Your task to perform on an android device: Go to sound settings Image 0: 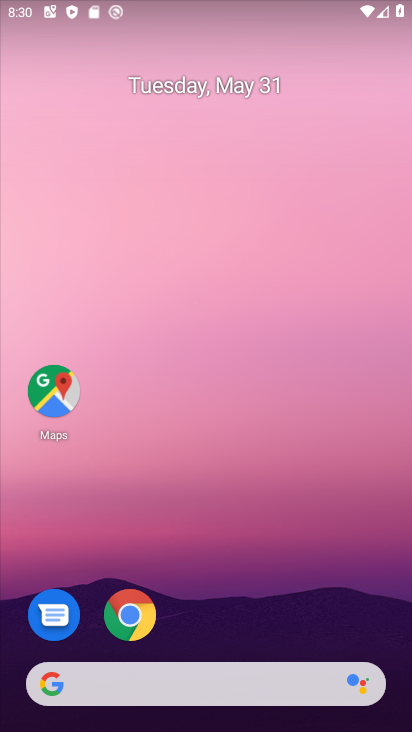
Step 0: drag from (366, 640) to (306, 67)
Your task to perform on an android device: Go to sound settings Image 1: 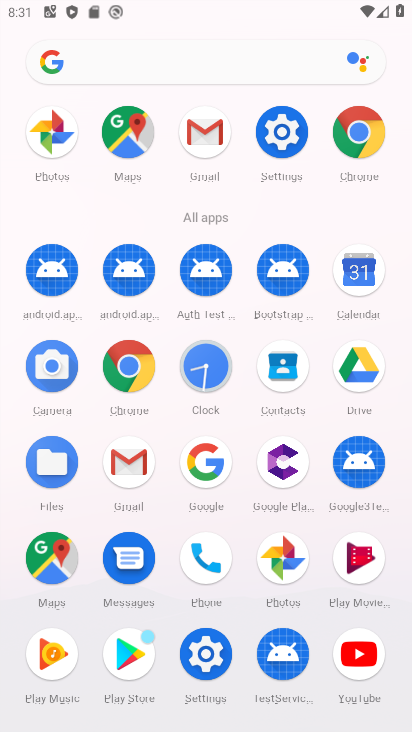
Step 1: click (206, 656)
Your task to perform on an android device: Go to sound settings Image 2: 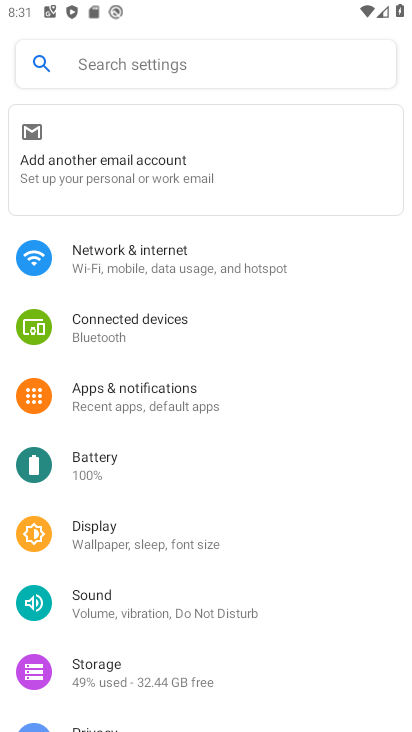
Step 2: click (102, 599)
Your task to perform on an android device: Go to sound settings Image 3: 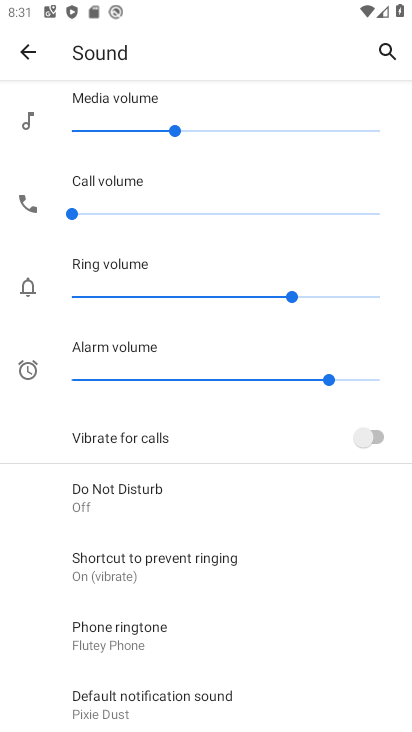
Step 3: drag from (102, 599) to (219, 205)
Your task to perform on an android device: Go to sound settings Image 4: 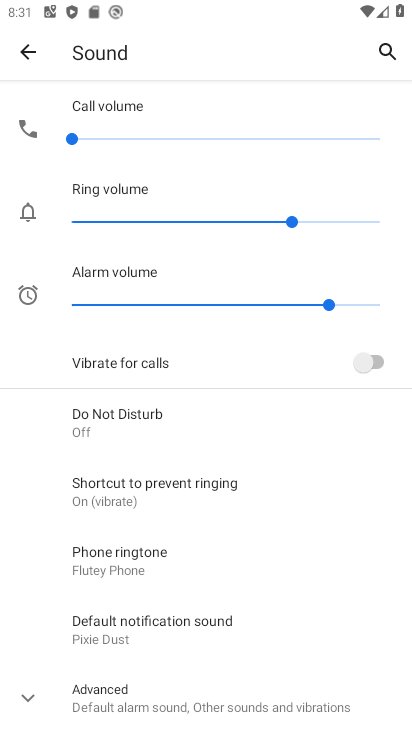
Step 4: drag from (286, 537) to (250, 205)
Your task to perform on an android device: Go to sound settings Image 5: 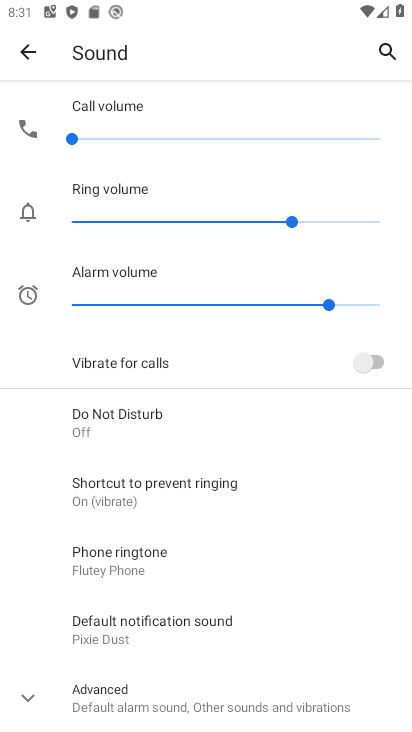
Step 5: click (29, 694)
Your task to perform on an android device: Go to sound settings Image 6: 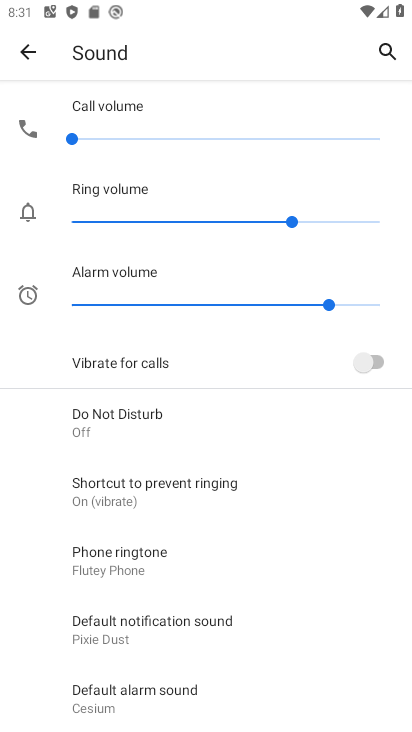
Step 6: task complete